Your task to perform on an android device: What's the weather going to be tomorrow? Image 0: 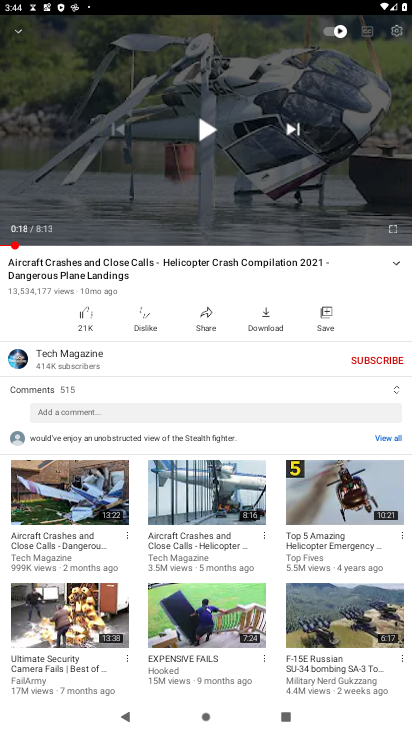
Step 0: press home button
Your task to perform on an android device: What's the weather going to be tomorrow? Image 1: 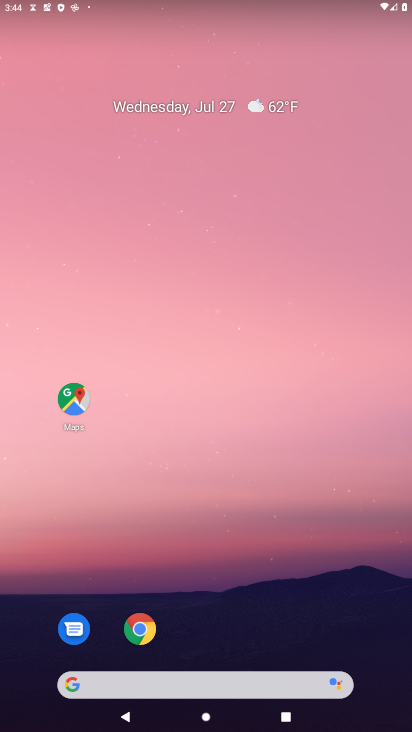
Step 1: drag from (177, 677) to (277, 16)
Your task to perform on an android device: What's the weather going to be tomorrow? Image 2: 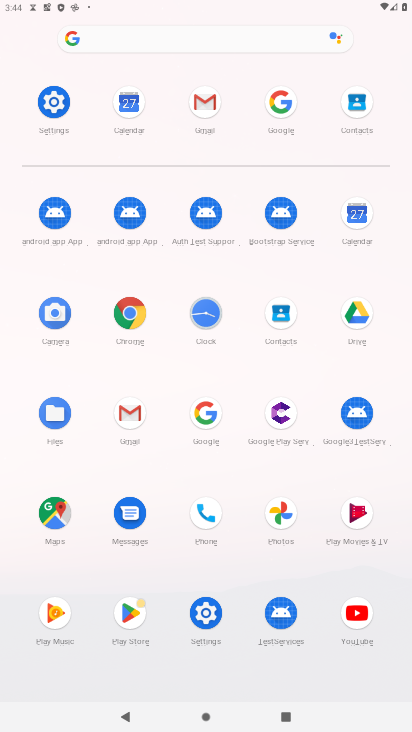
Step 2: click (279, 101)
Your task to perform on an android device: What's the weather going to be tomorrow? Image 3: 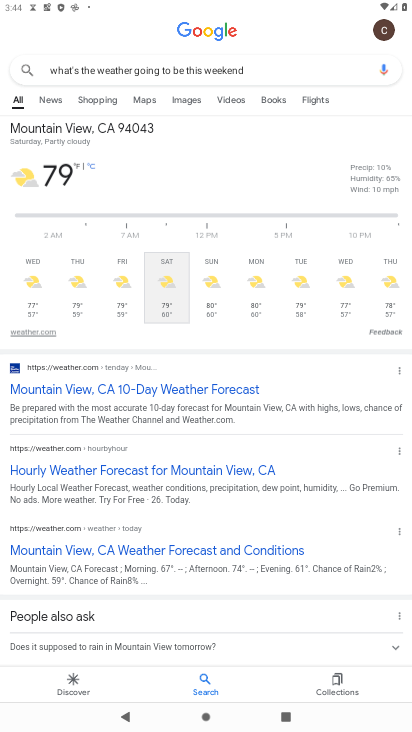
Step 3: click (289, 70)
Your task to perform on an android device: What's the weather going to be tomorrow? Image 4: 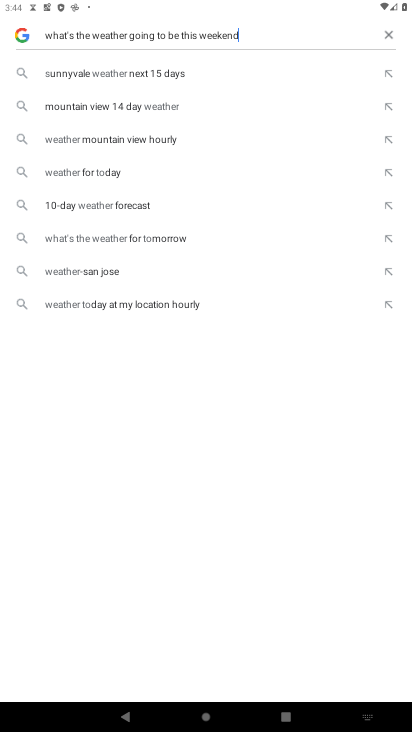
Step 4: click (386, 33)
Your task to perform on an android device: What's the weather going to be tomorrow? Image 5: 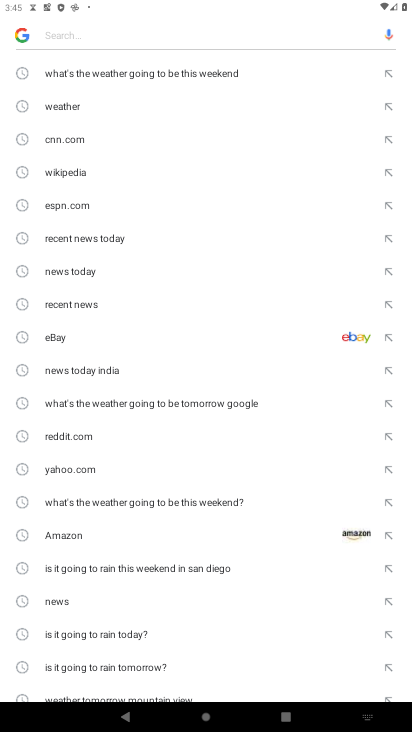
Step 5: type "What's the weather going to be tomorrow?"
Your task to perform on an android device: What's the weather going to be tomorrow? Image 6: 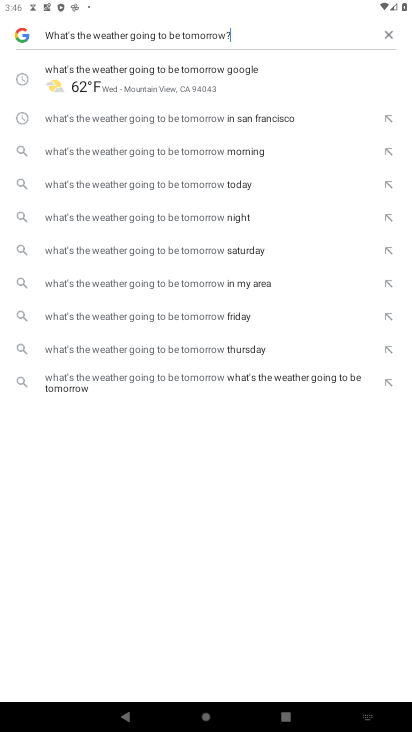
Step 6: click (171, 79)
Your task to perform on an android device: What's the weather going to be tomorrow? Image 7: 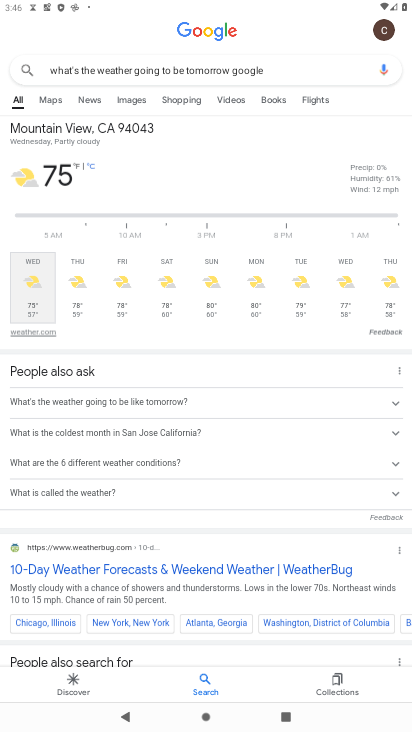
Step 7: click (72, 308)
Your task to perform on an android device: What's the weather going to be tomorrow? Image 8: 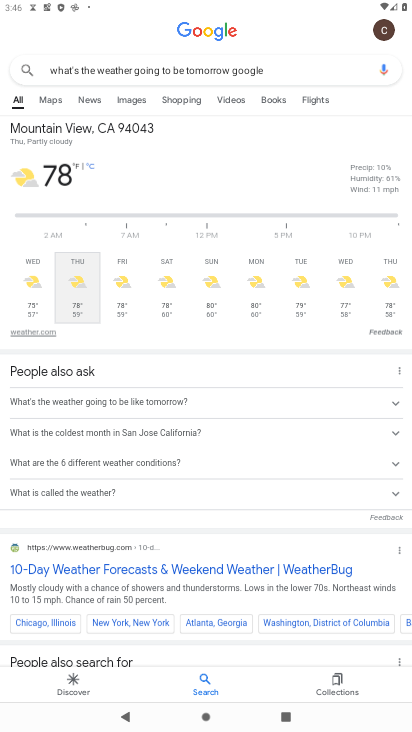
Step 8: task complete